Your task to perform on an android device: turn on sleep mode Image 0: 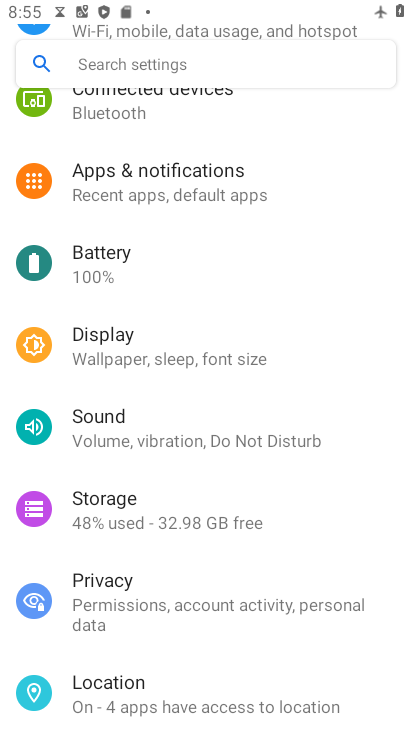
Step 0: click (145, 349)
Your task to perform on an android device: turn on sleep mode Image 1: 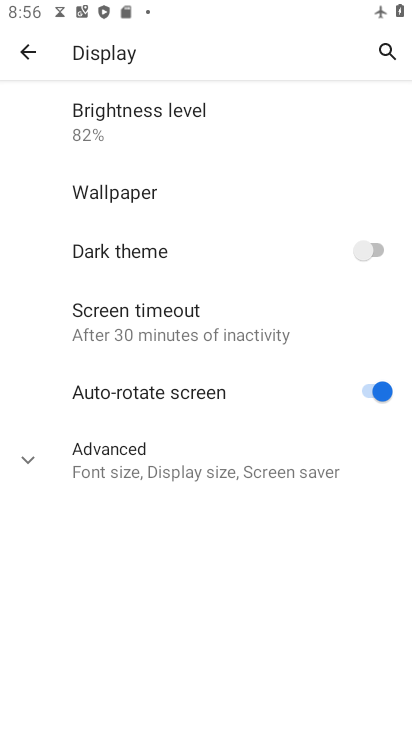
Step 1: click (179, 450)
Your task to perform on an android device: turn on sleep mode Image 2: 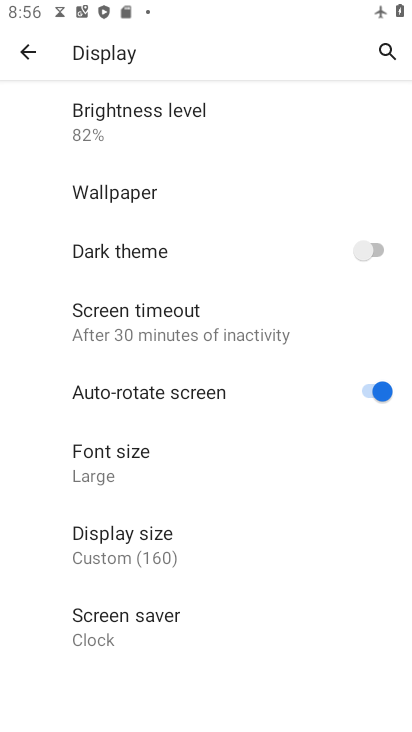
Step 2: task complete